Your task to perform on an android device: check android version Image 0: 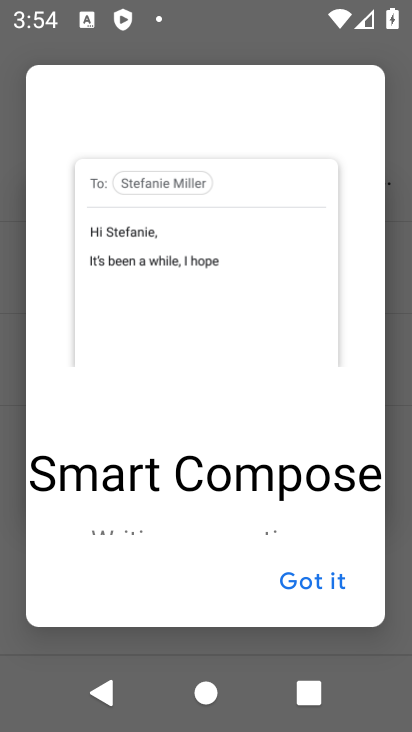
Step 0: task complete